Your task to perform on an android device: find photos in the google photos app Image 0: 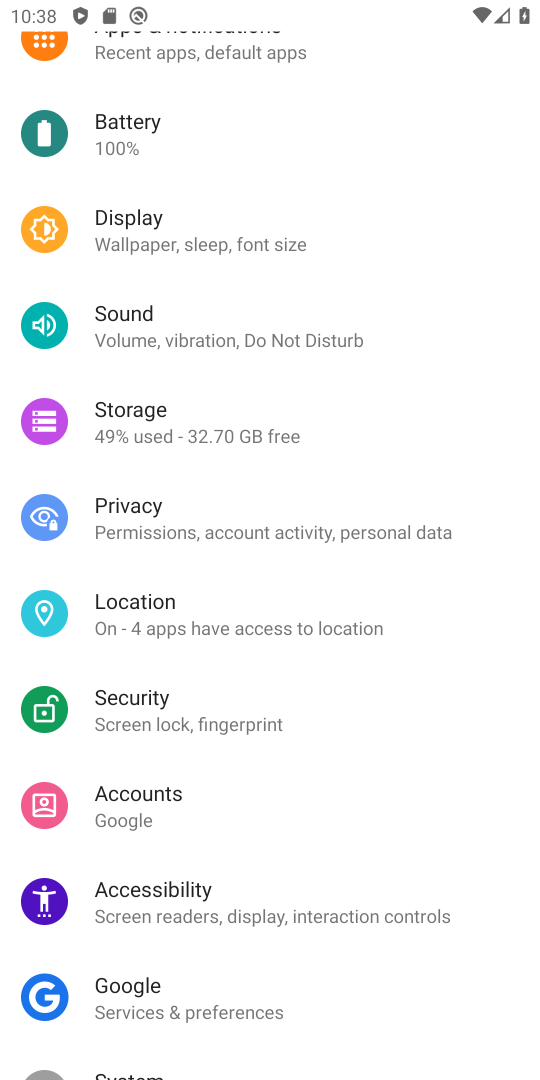
Step 0: press back button
Your task to perform on an android device: find photos in the google photos app Image 1: 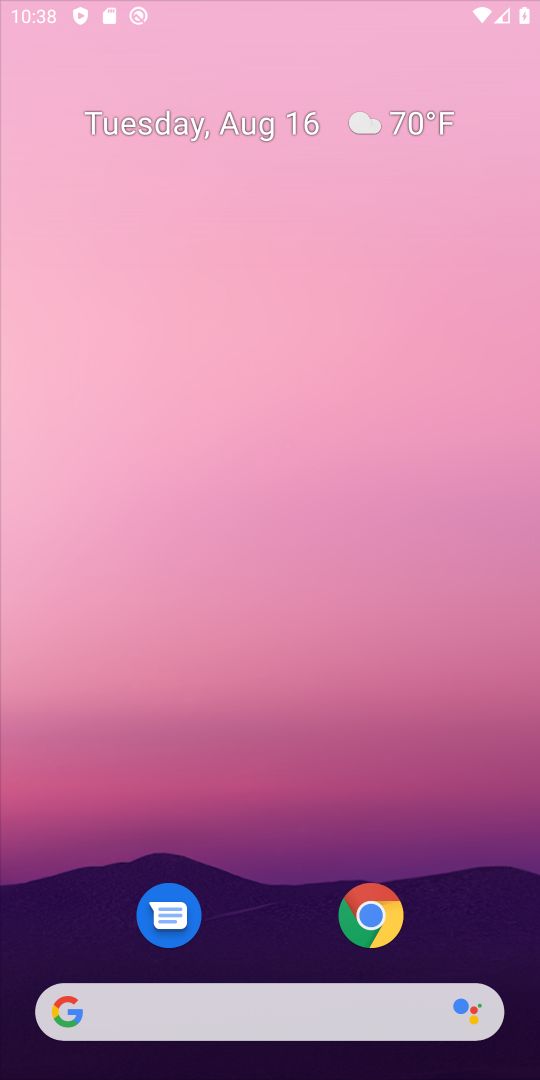
Step 1: press home button
Your task to perform on an android device: find photos in the google photos app Image 2: 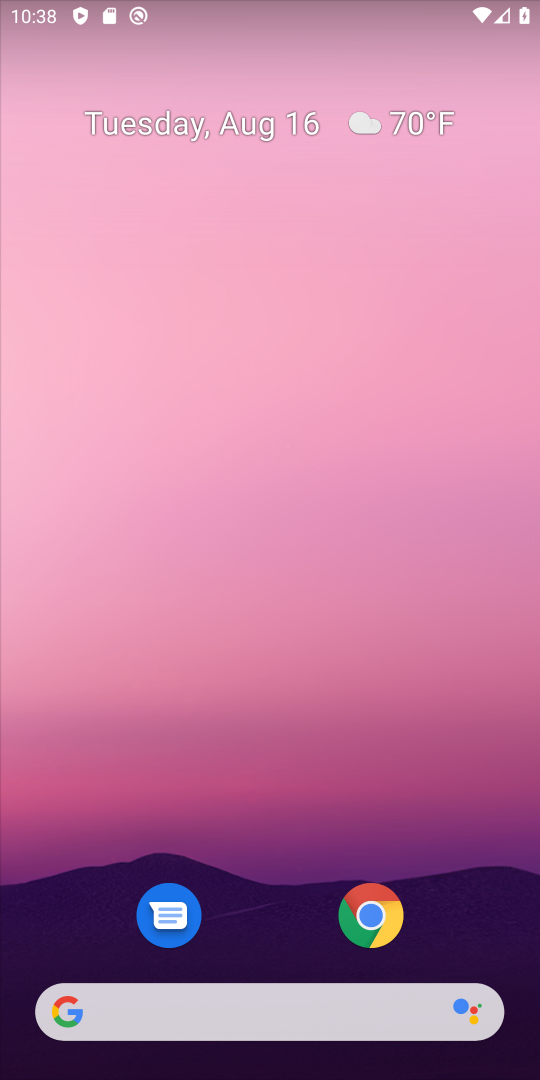
Step 2: drag from (300, 951) to (299, 213)
Your task to perform on an android device: find photos in the google photos app Image 3: 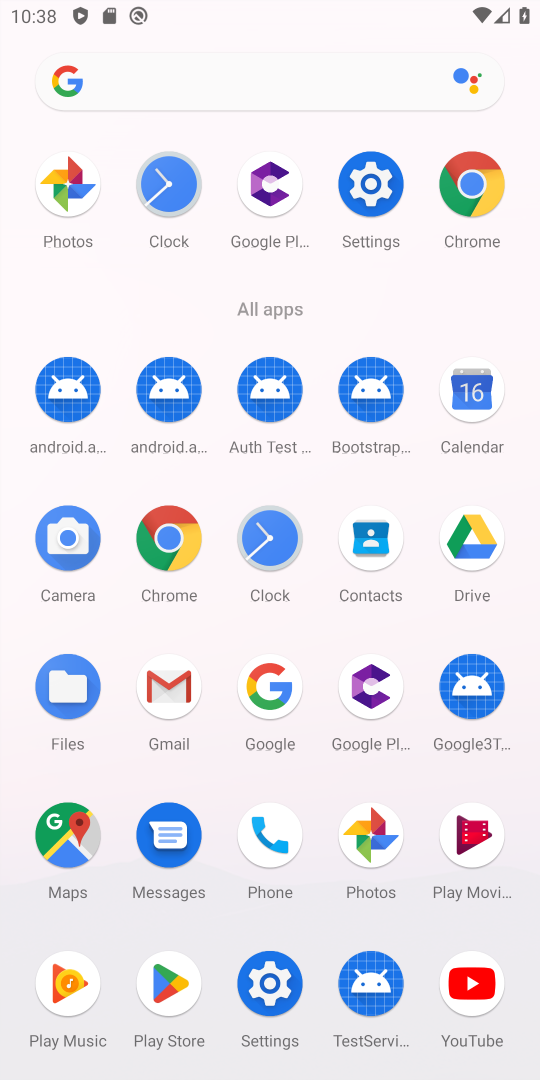
Step 3: click (369, 821)
Your task to perform on an android device: find photos in the google photos app Image 4: 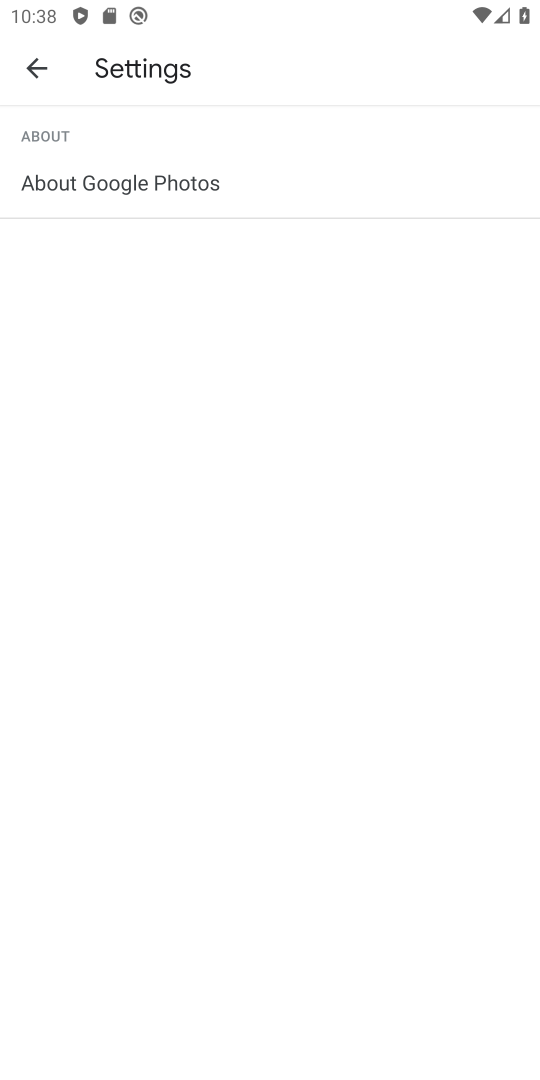
Step 4: click (30, 66)
Your task to perform on an android device: find photos in the google photos app Image 5: 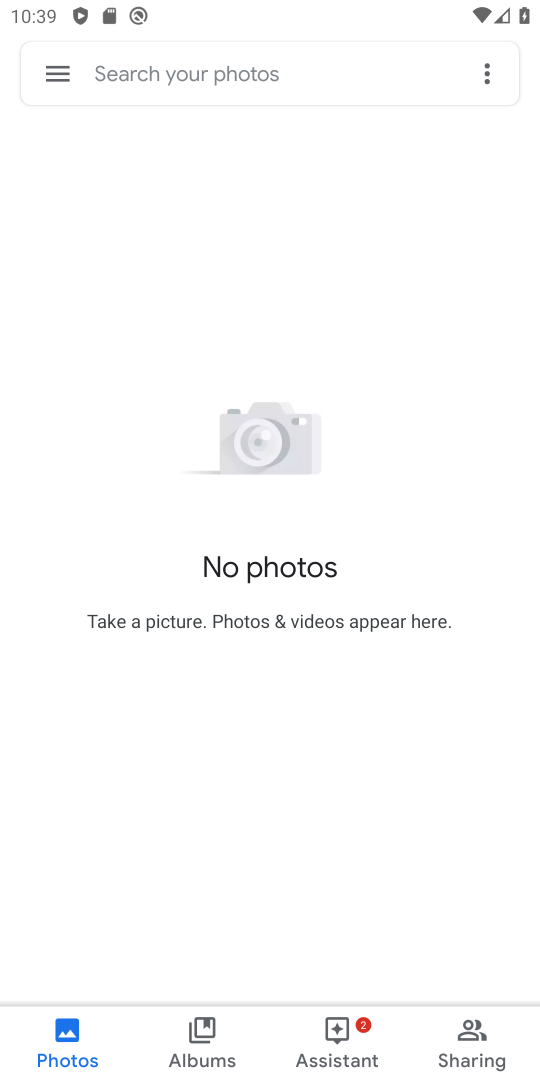
Step 5: task complete